Your task to perform on an android device: Show me popular videos on Youtube Image 0: 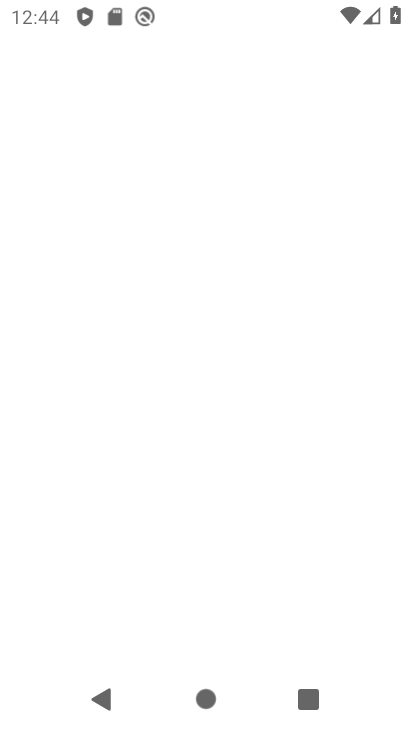
Step 0: press home button
Your task to perform on an android device: Show me popular videos on Youtube Image 1: 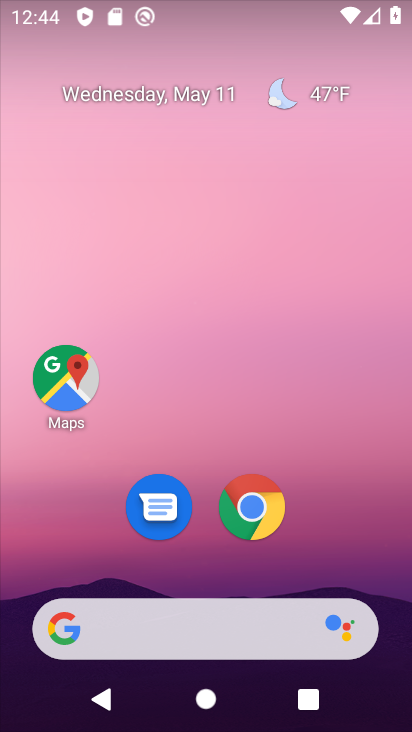
Step 1: drag from (327, 527) to (220, 22)
Your task to perform on an android device: Show me popular videos on Youtube Image 2: 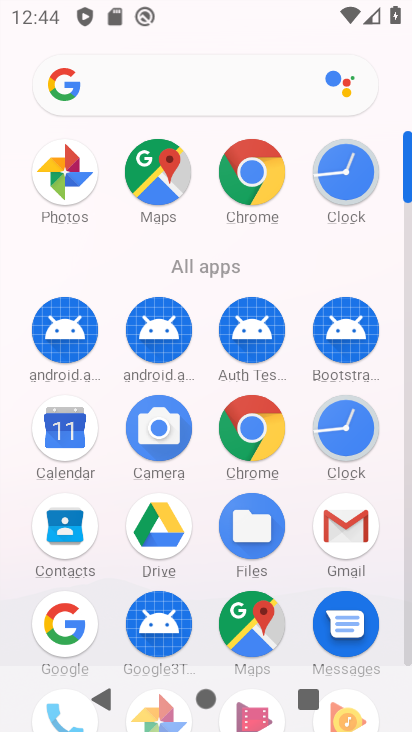
Step 2: click (410, 652)
Your task to perform on an android device: Show me popular videos on Youtube Image 3: 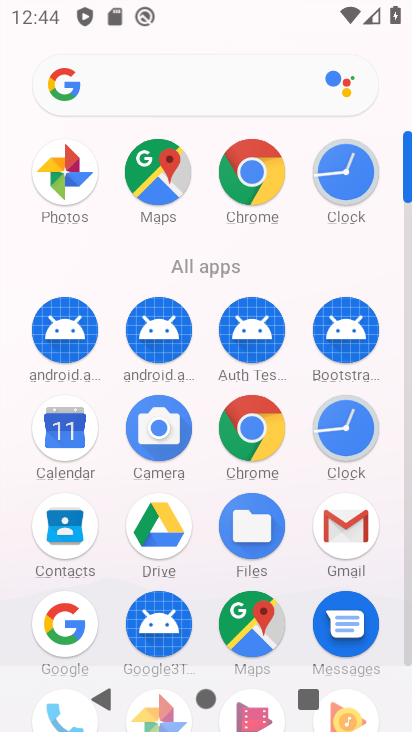
Step 3: click (410, 652)
Your task to perform on an android device: Show me popular videos on Youtube Image 4: 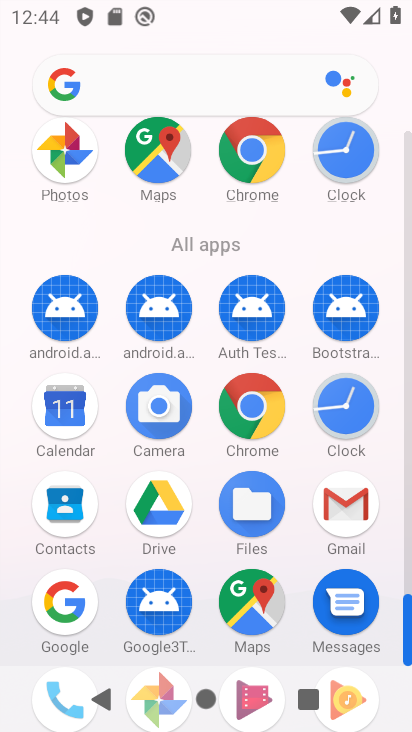
Step 4: click (409, 704)
Your task to perform on an android device: Show me popular videos on Youtube Image 5: 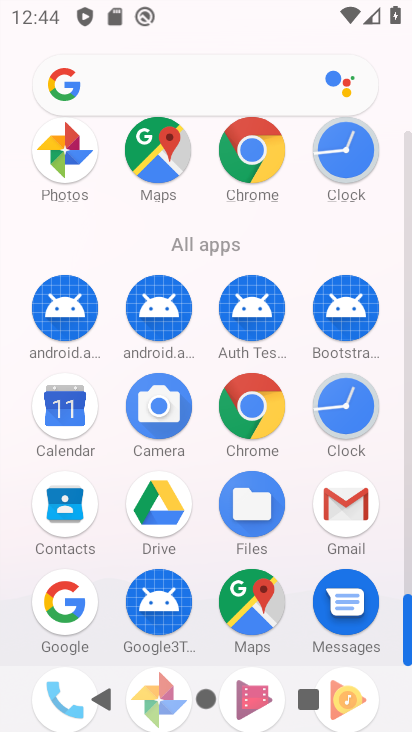
Step 5: click (407, 717)
Your task to perform on an android device: Show me popular videos on Youtube Image 6: 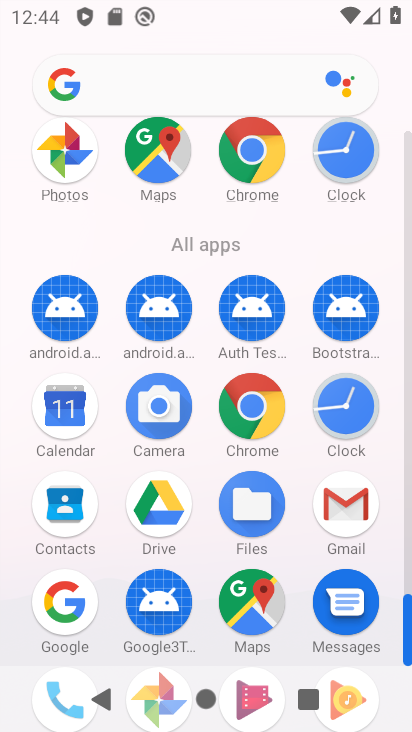
Step 6: click (405, 720)
Your task to perform on an android device: Show me popular videos on Youtube Image 7: 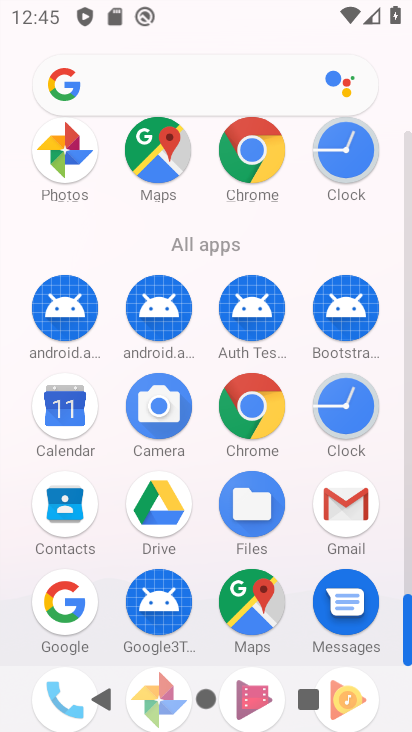
Step 7: drag from (405, 650) to (368, 722)
Your task to perform on an android device: Show me popular videos on Youtube Image 8: 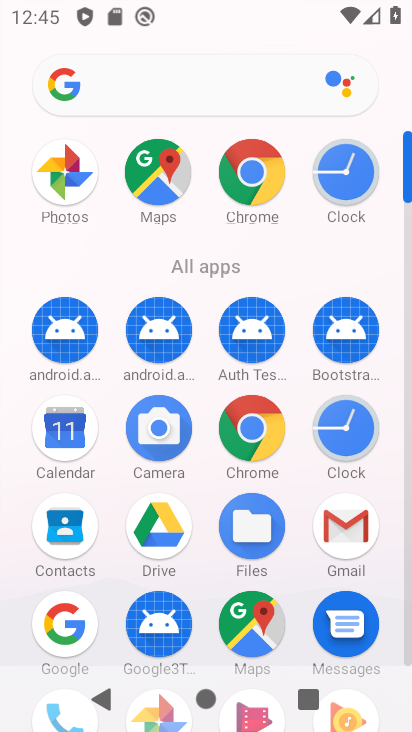
Step 8: drag from (204, 634) to (252, 291)
Your task to perform on an android device: Show me popular videos on Youtube Image 9: 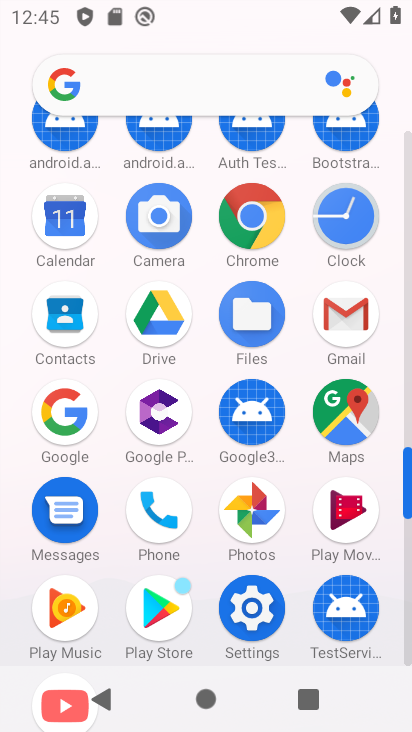
Step 9: click (408, 641)
Your task to perform on an android device: Show me popular videos on Youtube Image 10: 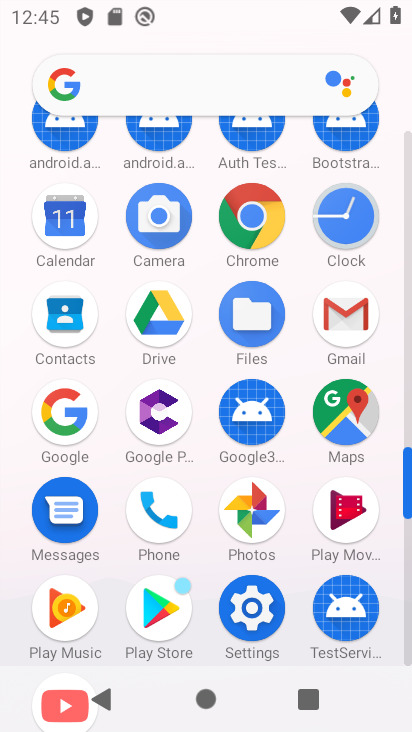
Step 10: click (408, 641)
Your task to perform on an android device: Show me popular videos on Youtube Image 11: 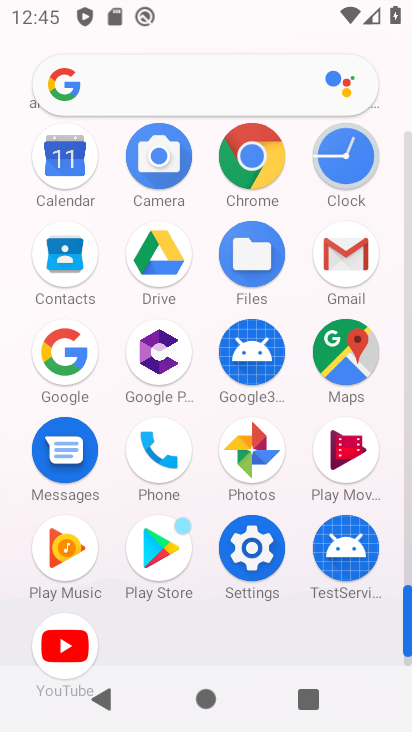
Step 11: click (50, 643)
Your task to perform on an android device: Show me popular videos on Youtube Image 12: 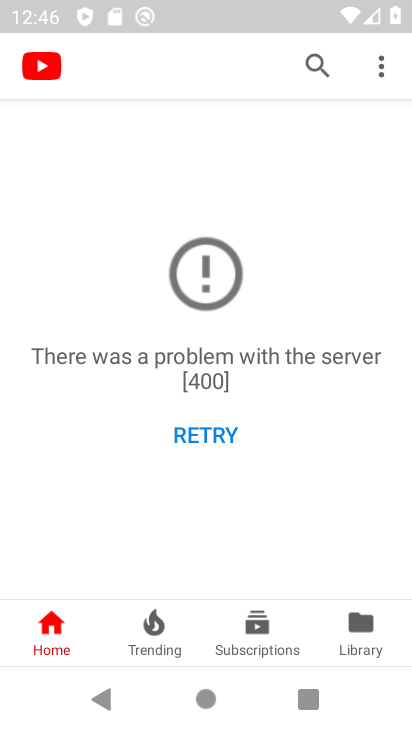
Step 12: click (150, 625)
Your task to perform on an android device: Show me popular videos on Youtube Image 13: 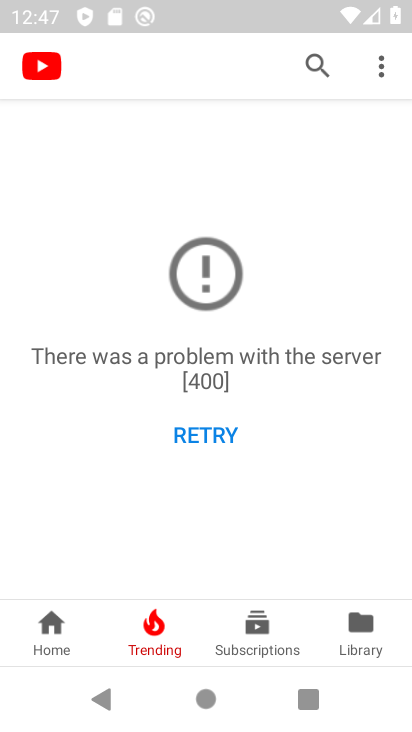
Step 13: task complete